Your task to perform on an android device: empty trash in google photos Image 0: 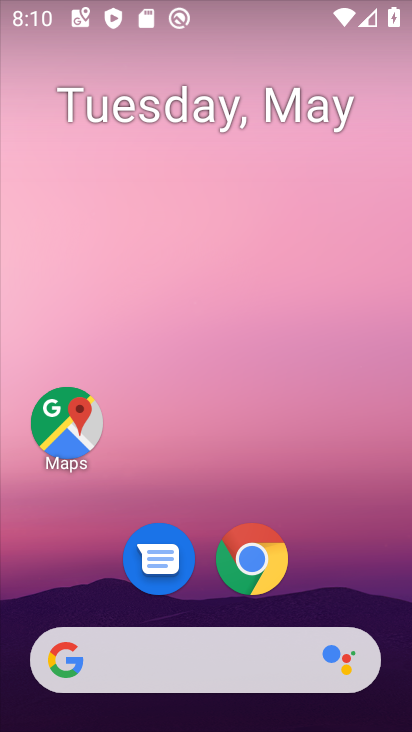
Step 0: drag from (352, 472) to (371, 17)
Your task to perform on an android device: empty trash in google photos Image 1: 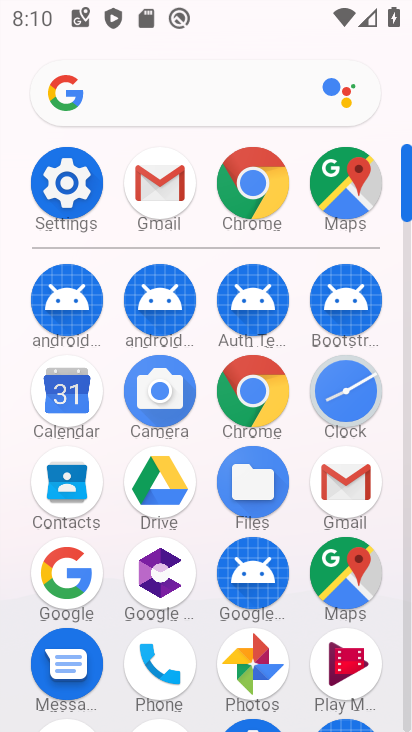
Step 1: click (262, 657)
Your task to perform on an android device: empty trash in google photos Image 2: 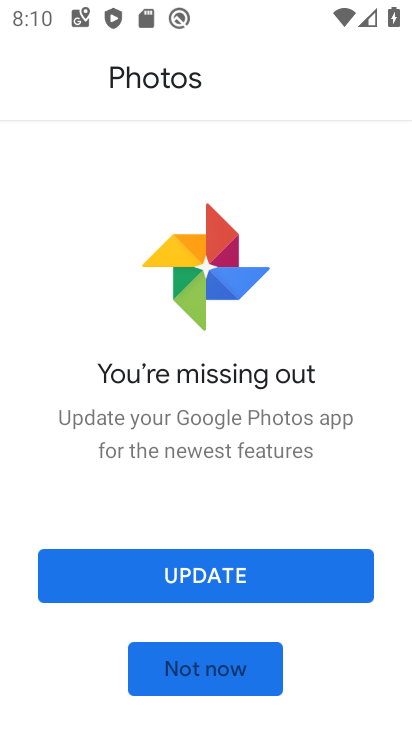
Step 2: click (211, 575)
Your task to perform on an android device: empty trash in google photos Image 3: 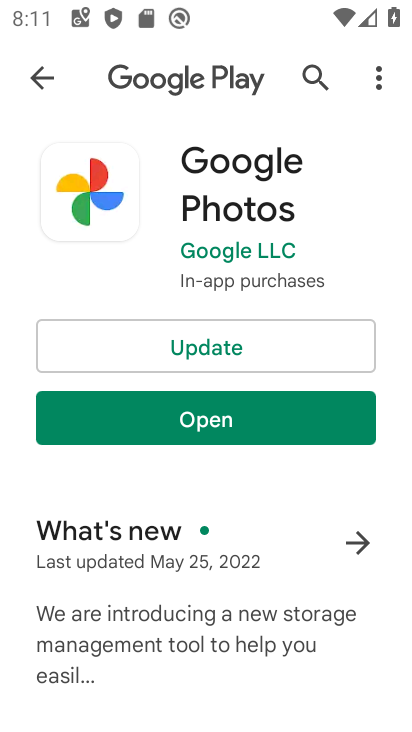
Step 3: click (228, 328)
Your task to perform on an android device: empty trash in google photos Image 4: 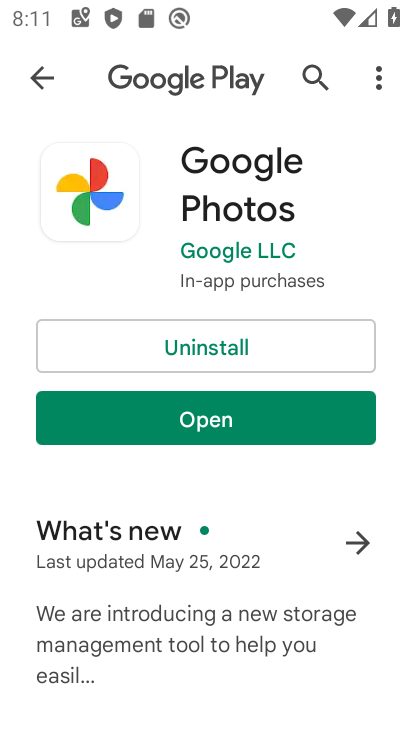
Step 4: click (213, 423)
Your task to perform on an android device: empty trash in google photos Image 5: 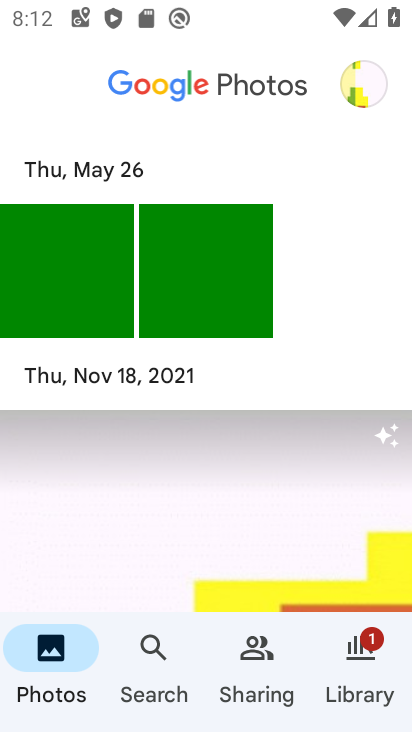
Step 5: drag from (279, 538) to (342, 215)
Your task to perform on an android device: empty trash in google photos Image 6: 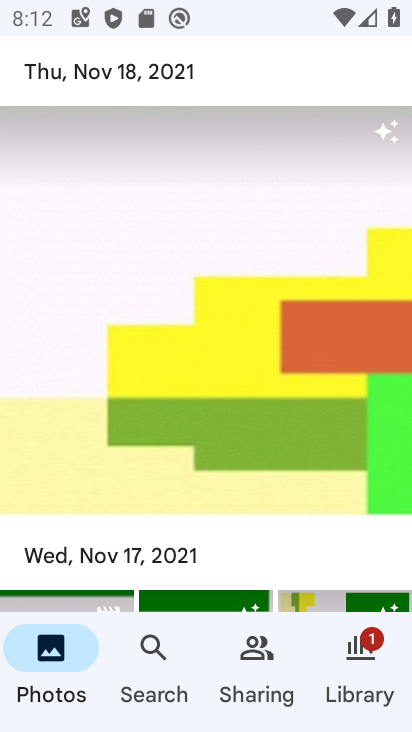
Step 6: drag from (279, 283) to (310, 570)
Your task to perform on an android device: empty trash in google photos Image 7: 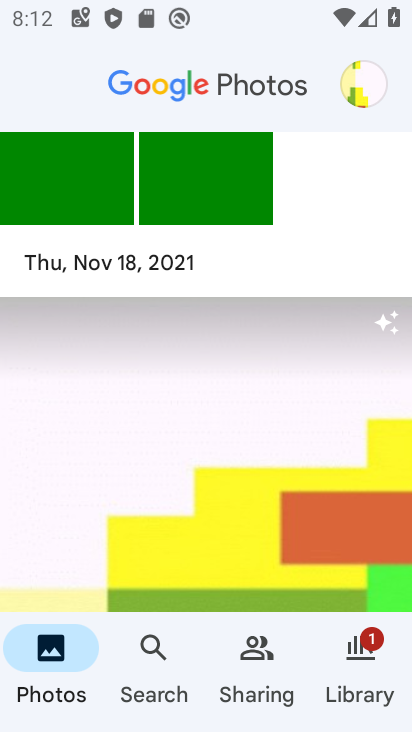
Step 7: click (367, 86)
Your task to perform on an android device: empty trash in google photos Image 8: 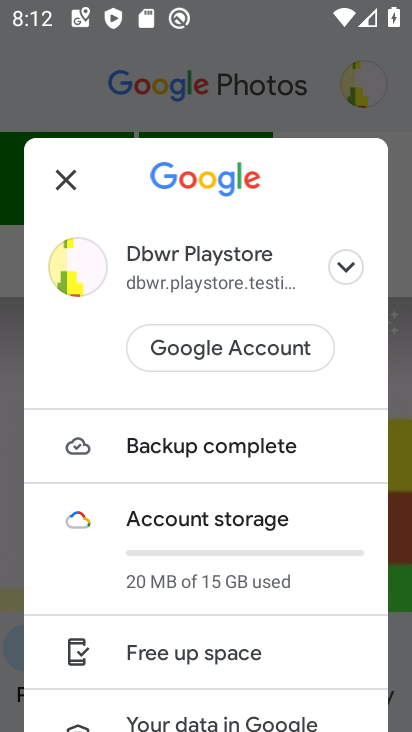
Step 8: task complete